Your task to perform on an android device: uninstall "File Manager" Image 0: 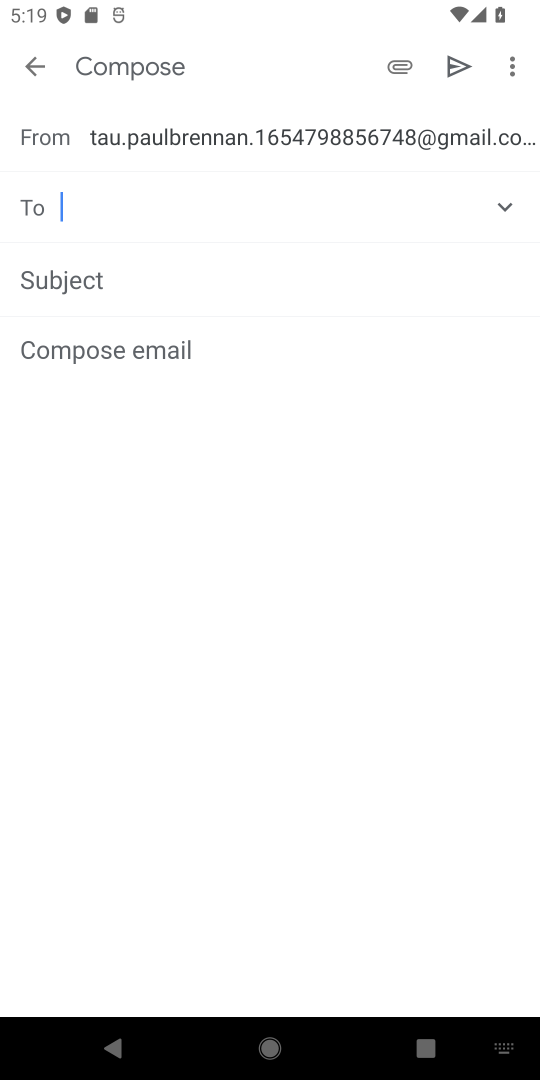
Step 0: press home button
Your task to perform on an android device: uninstall "File Manager" Image 1: 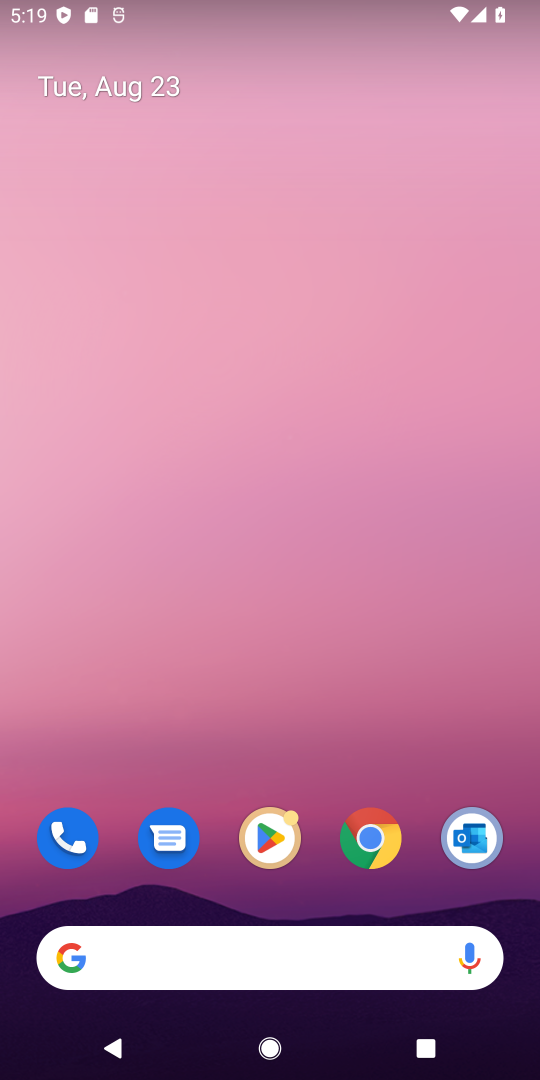
Step 1: click (272, 840)
Your task to perform on an android device: uninstall "File Manager" Image 2: 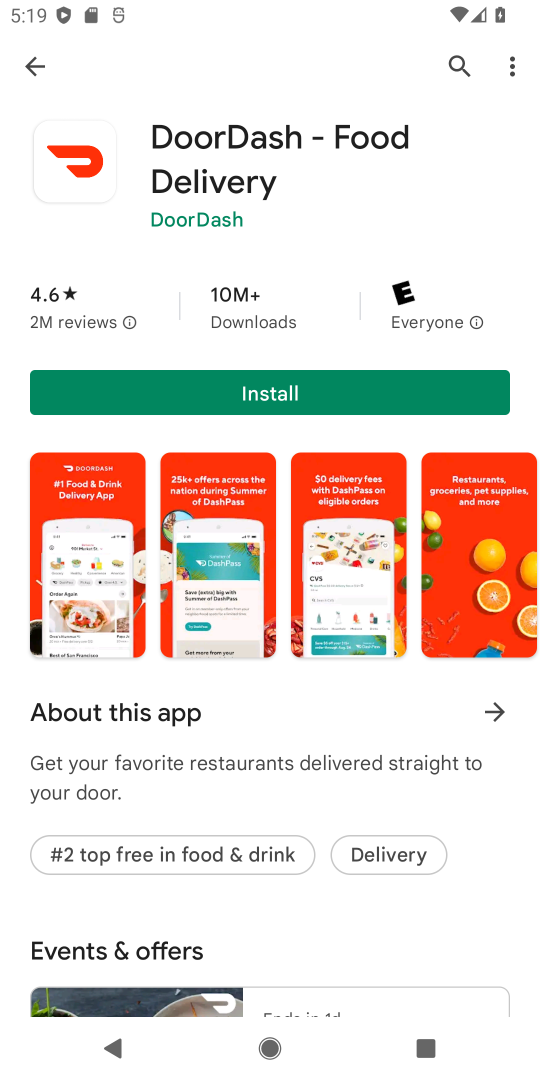
Step 2: click (456, 61)
Your task to perform on an android device: uninstall "File Manager" Image 3: 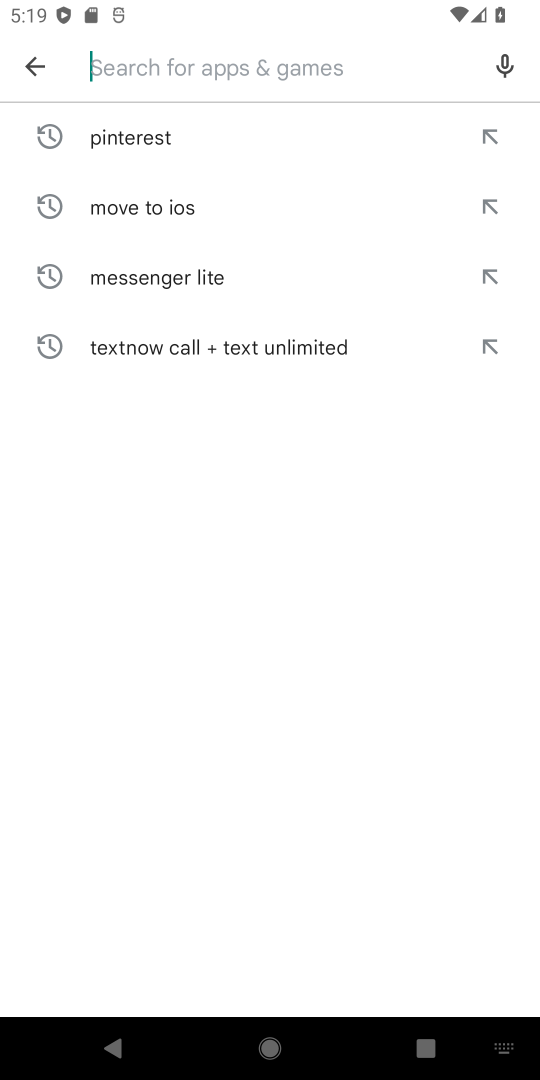
Step 3: type "File Manager"
Your task to perform on an android device: uninstall "File Manager" Image 4: 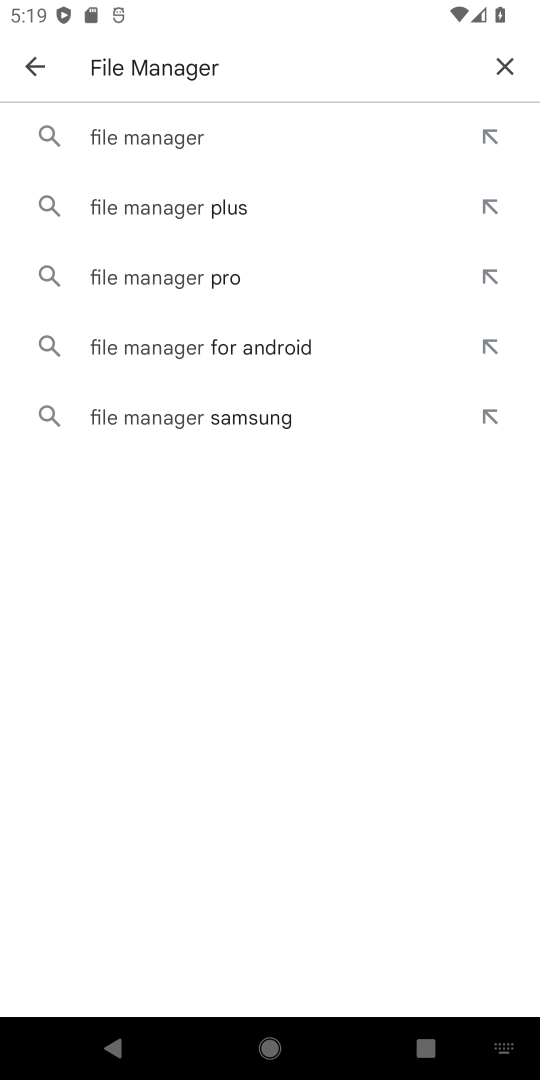
Step 4: click (168, 133)
Your task to perform on an android device: uninstall "File Manager" Image 5: 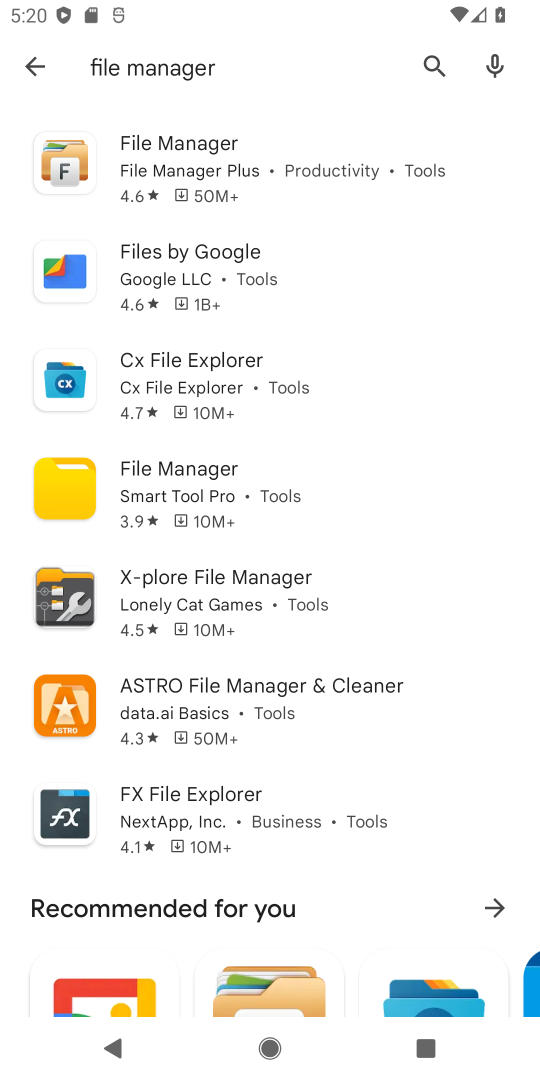
Step 5: click (188, 144)
Your task to perform on an android device: uninstall "File Manager" Image 6: 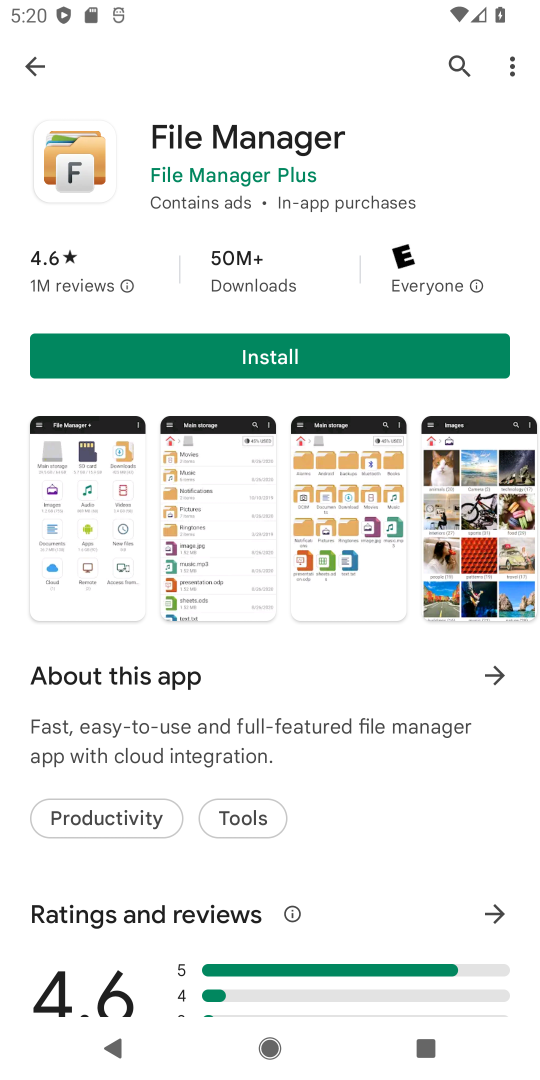
Step 6: task complete